Your task to perform on an android device: Search for seafood restaurants on Google Maps Image 0: 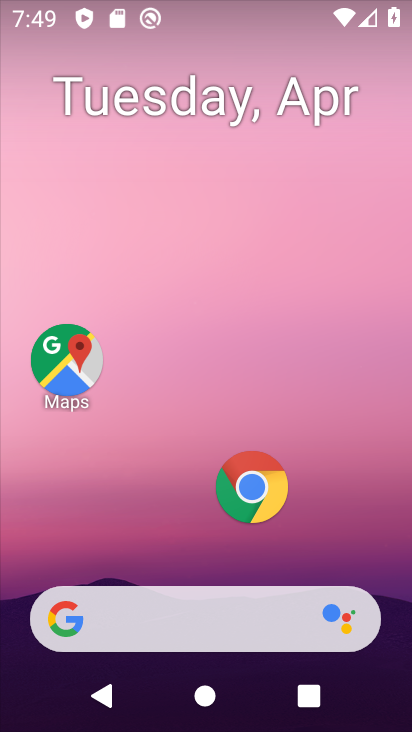
Step 0: click (61, 360)
Your task to perform on an android device: Search for seafood restaurants on Google Maps Image 1: 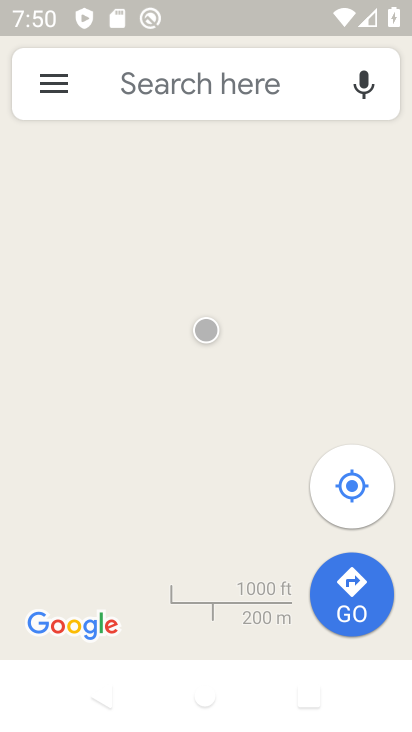
Step 1: click (214, 82)
Your task to perform on an android device: Search for seafood restaurants on Google Maps Image 2: 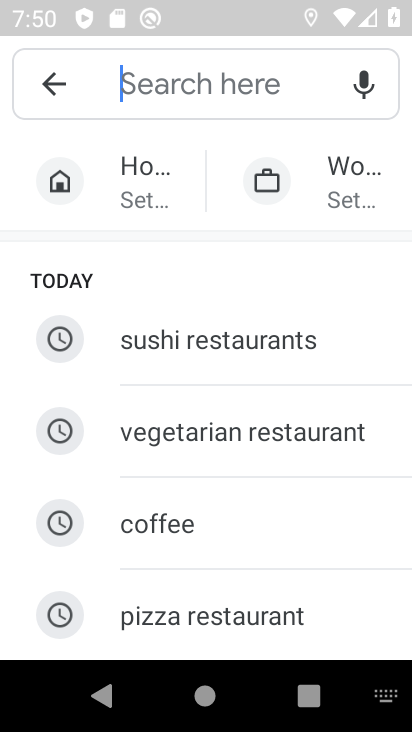
Step 2: type "seafood"
Your task to perform on an android device: Search for seafood restaurants on Google Maps Image 3: 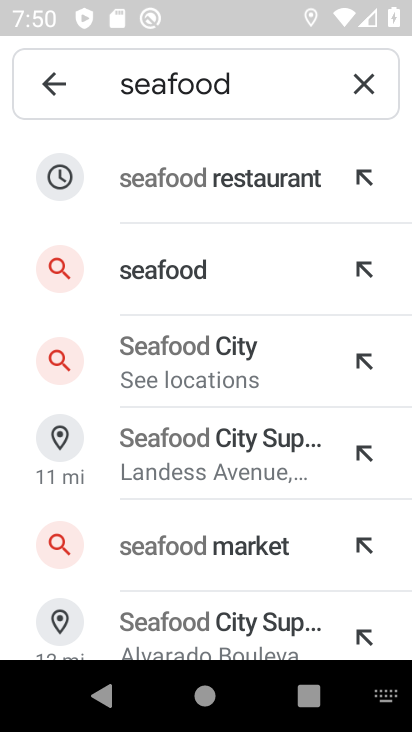
Step 3: click (265, 174)
Your task to perform on an android device: Search for seafood restaurants on Google Maps Image 4: 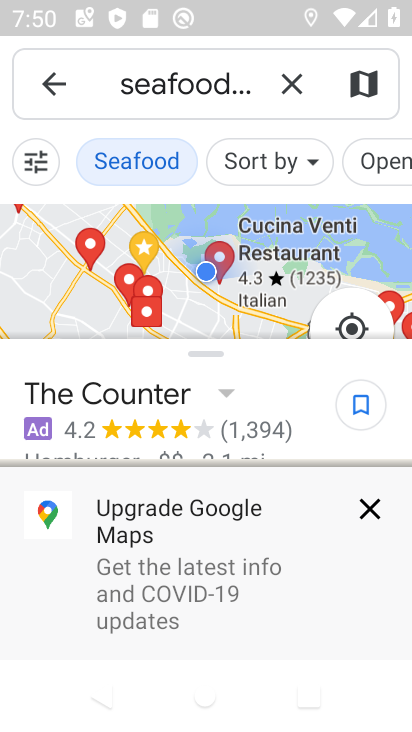
Step 4: task complete